Your task to perform on an android device: open wifi settings Image 0: 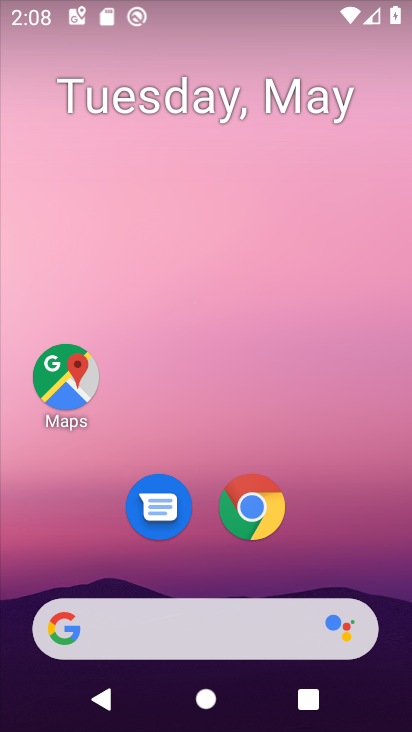
Step 0: drag from (187, 359) to (205, 162)
Your task to perform on an android device: open wifi settings Image 1: 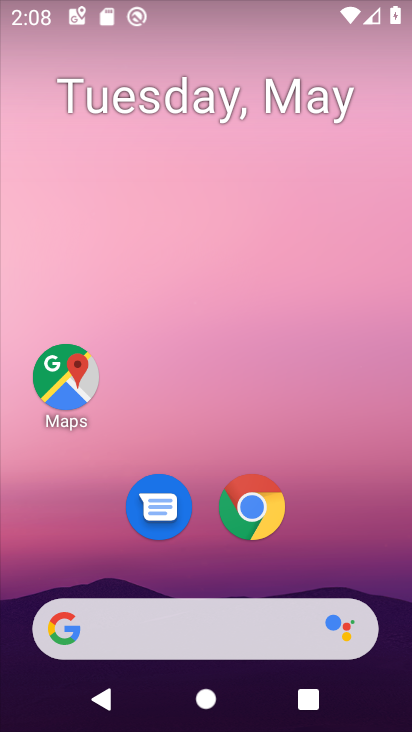
Step 1: drag from (214, 582) to (235, 157)
Your task to perform on an android device: open wifi settings Image 2: 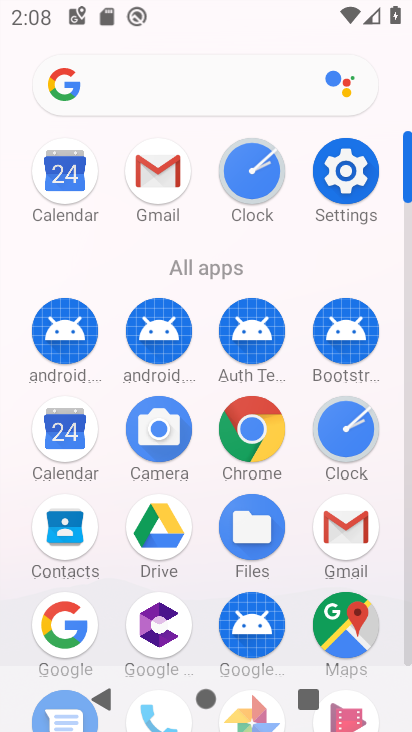
Step 2: click (322, 191)
Your task to perform on an android device: open wifi settings Image 3: 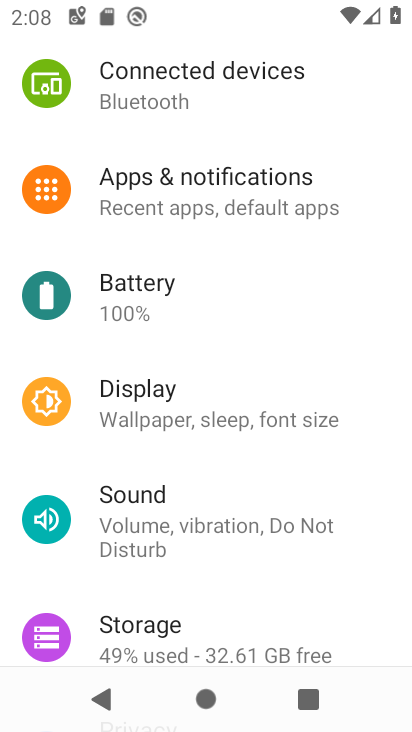
Step 3: drag from (187, 140) to (188, 537)
Your task to perform on an android device: open wifi settings Image 4: 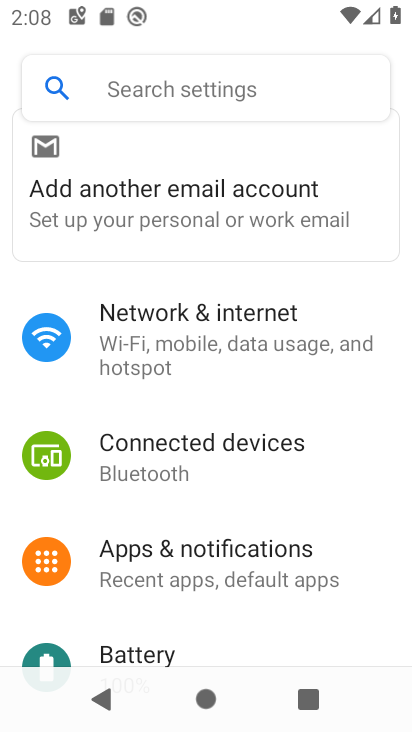
Step 4: click (155, 307)
Your task to perform on an android device: open wifi settings Image 5: 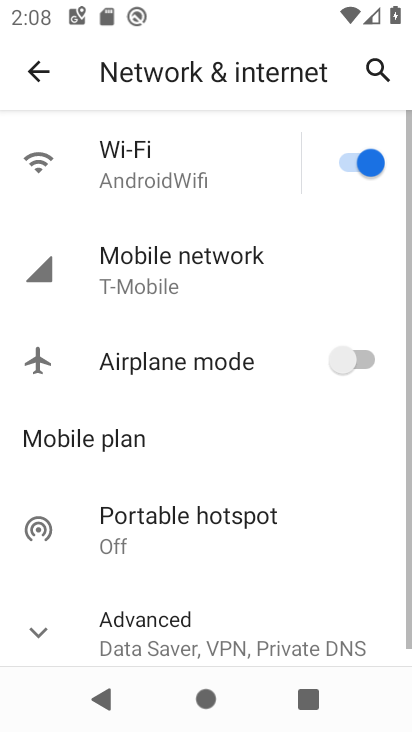
Step 5: click (175, 190)
Your task to perform on an android device: open wifi settings Image 6: 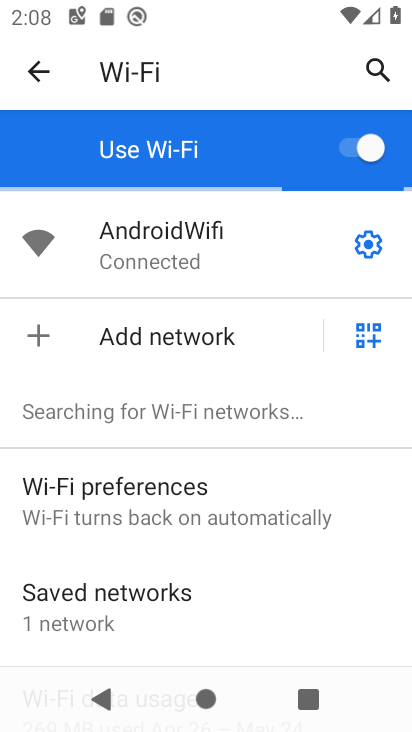
Step 6: task complete